Your task to perform on an android device: turn off javascript in the chrome app Image 0: 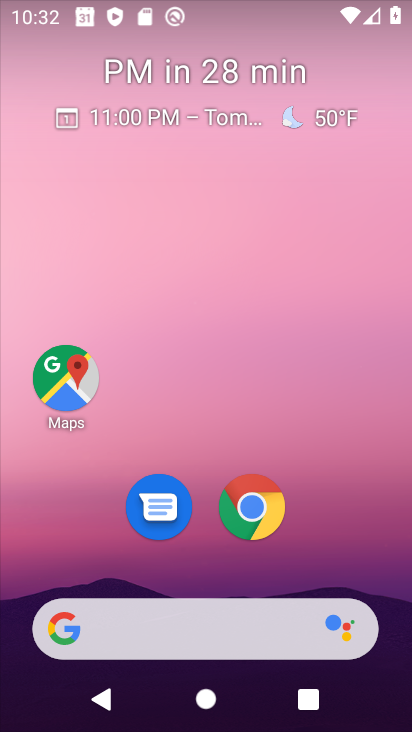
Step 0: click (253, 498)
Your task to perform on an android device: turn off javascript in the chrome app Image 1: 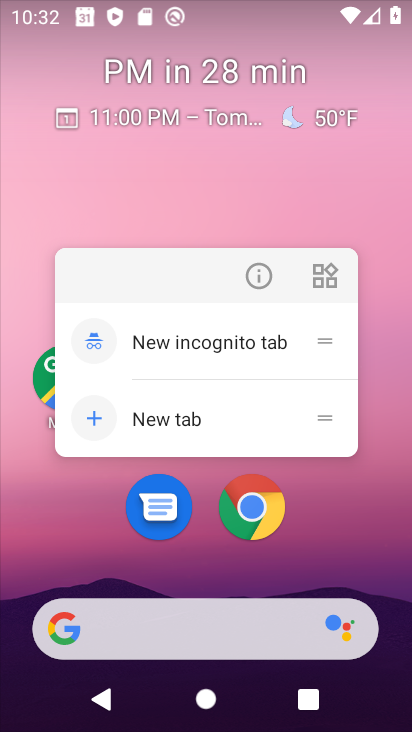
Step 1: click (261, 522)
Your task to perform on an android device: turn off javascript in the chrome app Image 2: 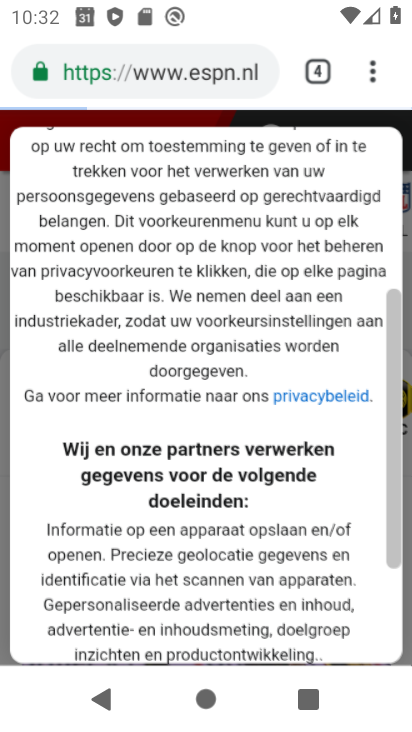
Step 2: click (365, 75)
Your task to perform on an android device: turn off javascript in the chrome app Image 3: 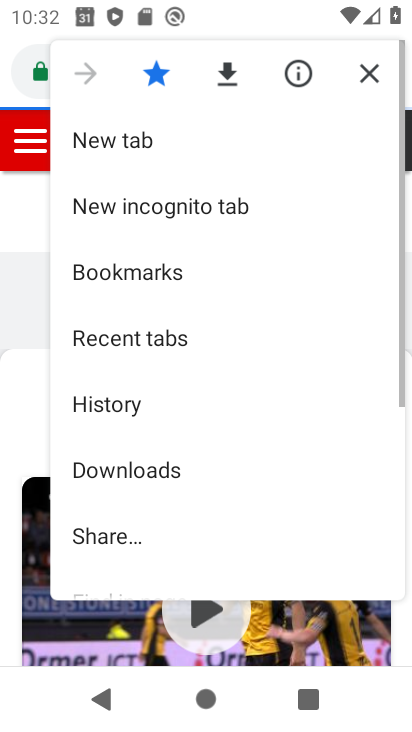
Step 3: drag from (280, 475) to (317, 161)
Your task to perform on an android device: turn off javascript in the chrome app Image 4: 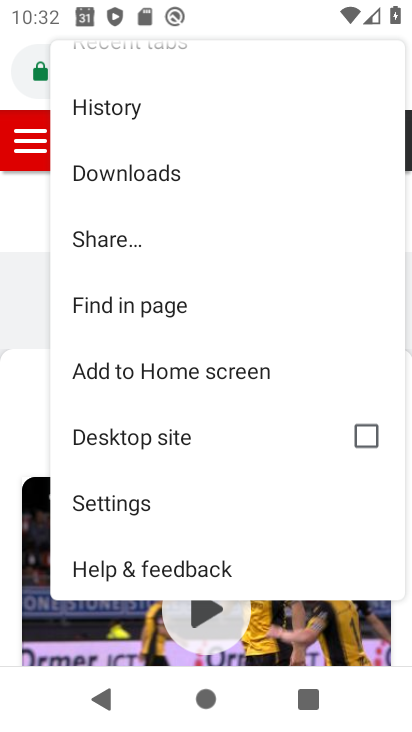
Step 4: click (121, 493)
Your task to perform on an android device: turn off javascript in the chrome app Image 5: 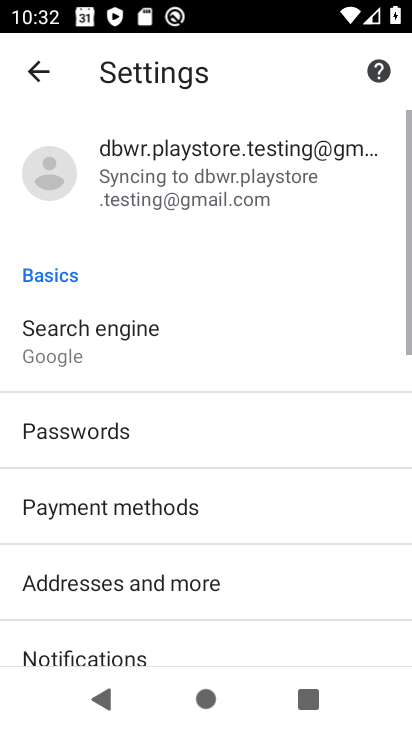
Step 5: drag from (269, 536) to (289, 156)
Your task to perform on an android device: turn off javascript in the chrome app Image 6: 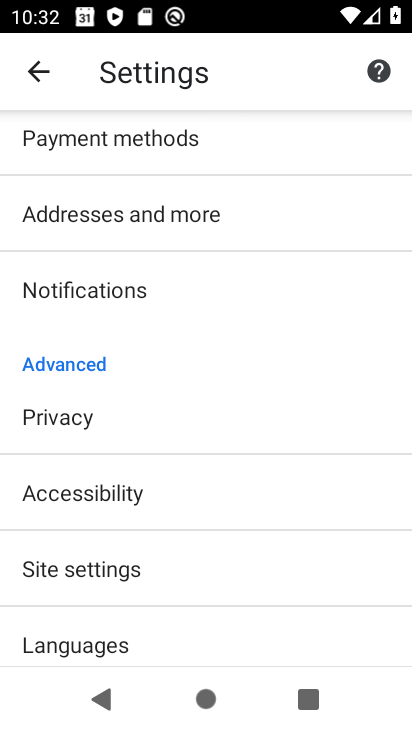
Step 6: click (92, 555)
Your task to perform on an android device: turn off javascript in the chrome app Image 7: 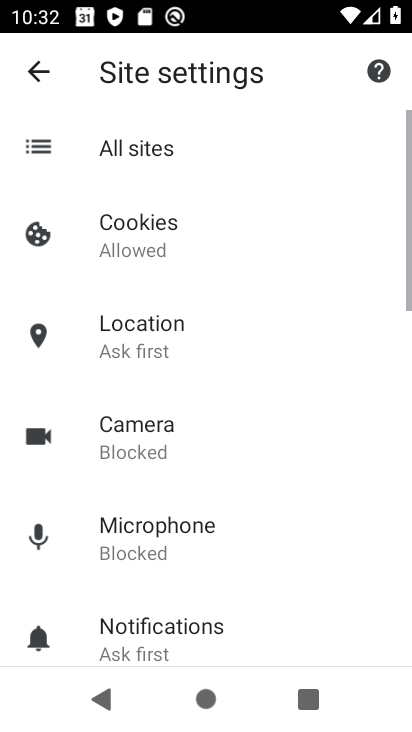
Step 7: drag from (159, 491) to (222, 193)
Your task to perform on an android device: turn off javascript in the chrome app Image 8: 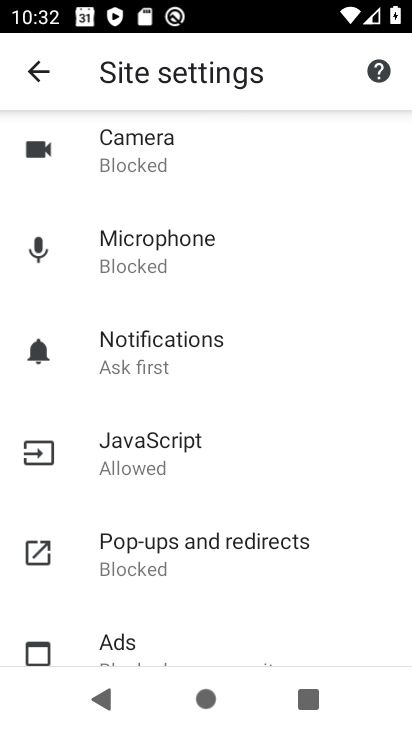
Step 8: click (218, 466)
Your task to perform on an android device: turn off javascript in the chrome app Image 9: 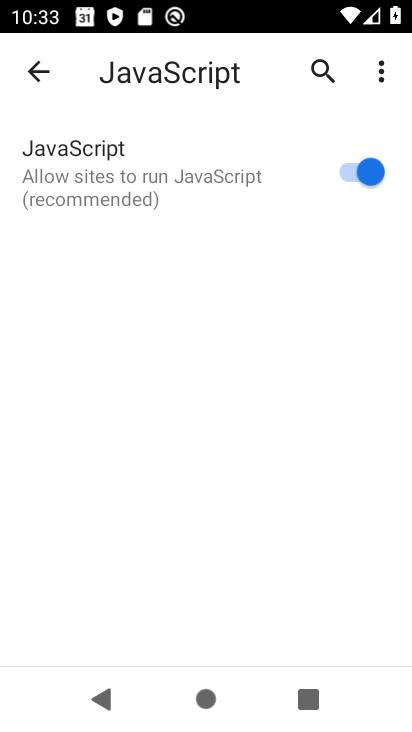
Step 9: click (358, 174)
Your task to perform on an android device: turn off javascript in the chrome app Image 10: 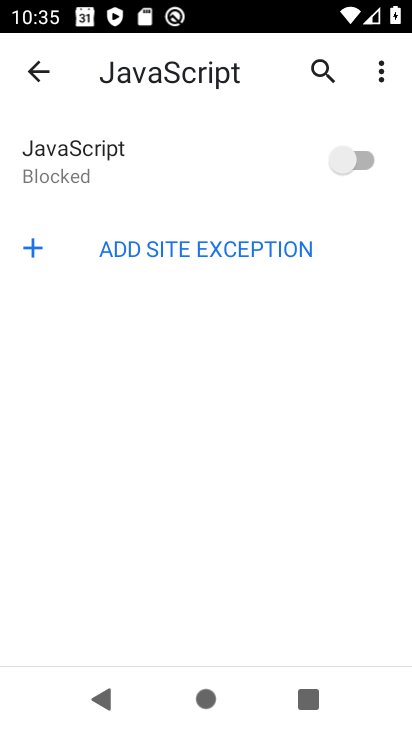
Step 10: task complete